Your task to perform on an android device: What is the recent news? Image 0: 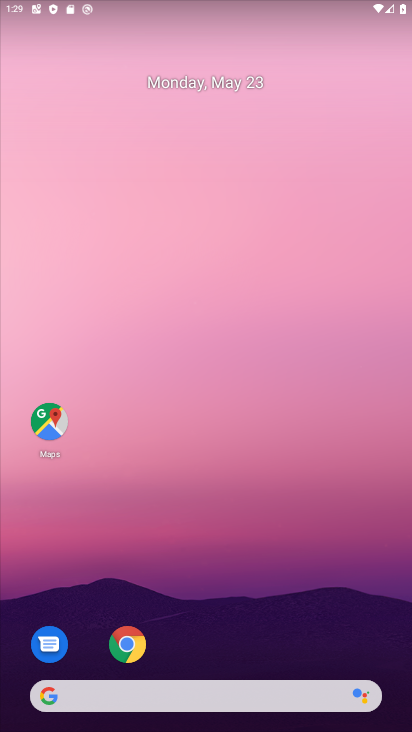
Step 0: drag from (261, 560) to (229, 5)
Your task to perform on an android device: What is the recent news? Image 1: 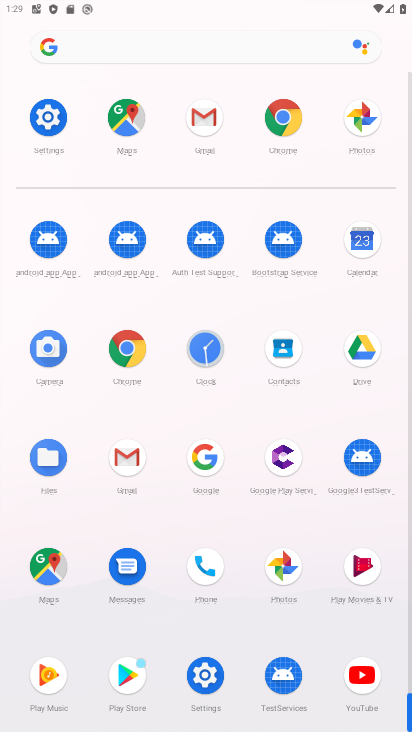
Step 1: drag from (11, 600) to (27, 171)
Your task to perform on an android device: What is the recent news? Image 2: 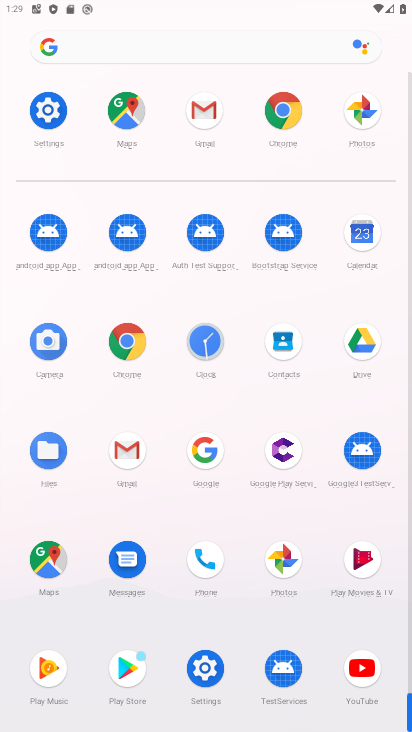
Step 2: click (128, 334)
Your task to perform on an android device: What is the recent news? Image 3: 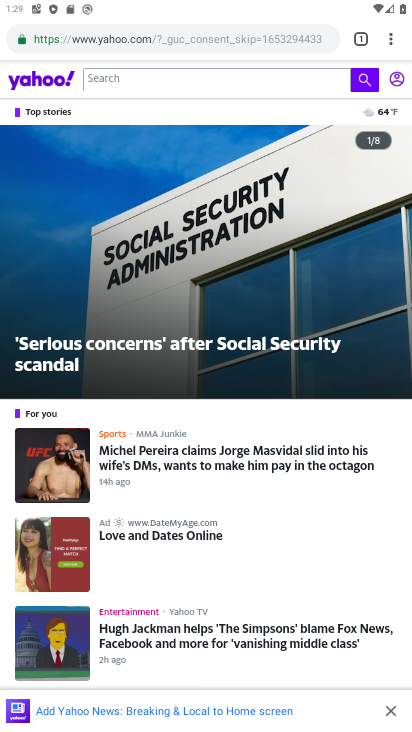
Step 3: click (143, 33)
Your task to perform on an android device: What is the recent news? Image 4: 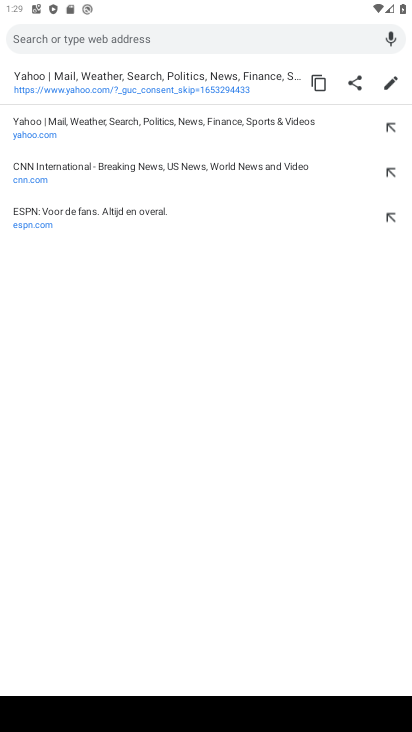
Step 4: type "What is the recent news?"
Your task to perform on an android device: What is the recent news? Image 5: 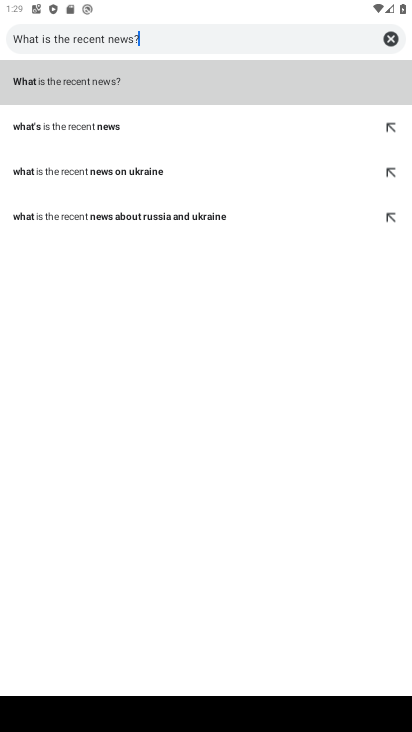
Step 5: type ""
Your task to perform on an android device: What is the recent news? Image 6: 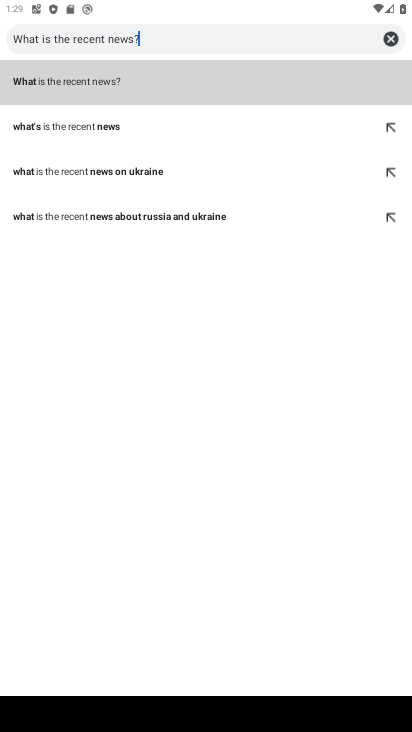
Step 6: click (88, 131)
Your task to perform on an android device: What is the recent news? Image 7: 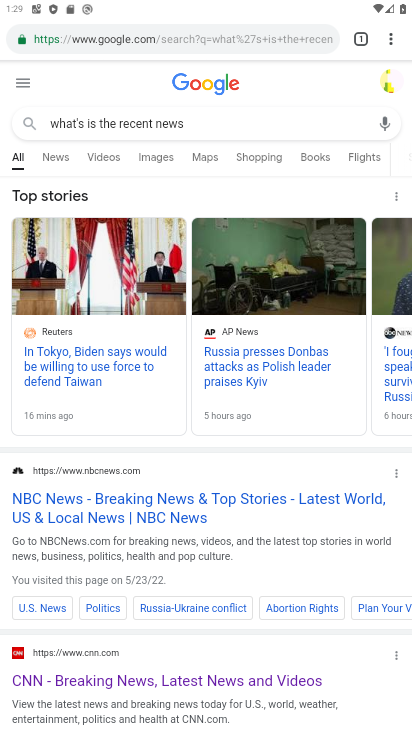
Step 7: task complete